Your task to perform on an android device: Go to wifi settings Image 0: 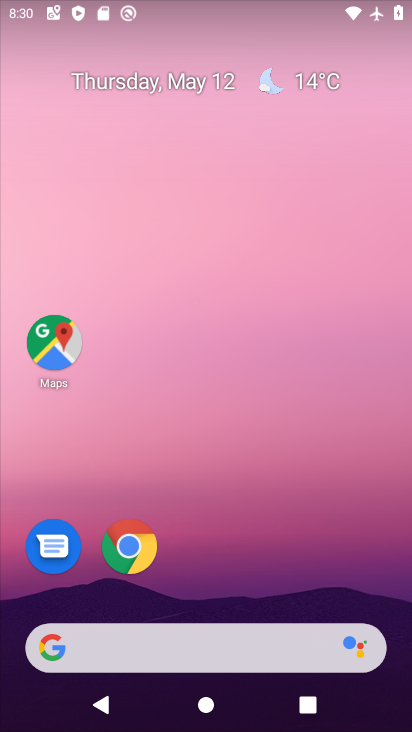
Step 0: drag from (269, 653) to (404, 214)
Your task to perform on an android device: Go to wifi settings Image 1: 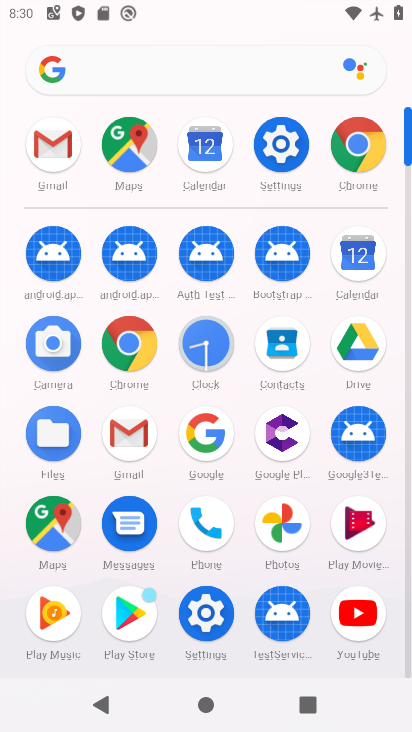
Step 1: drag from (252, 401) to (316, 77)
Your task to perform on an android device: Go to wifi settings Image 2: 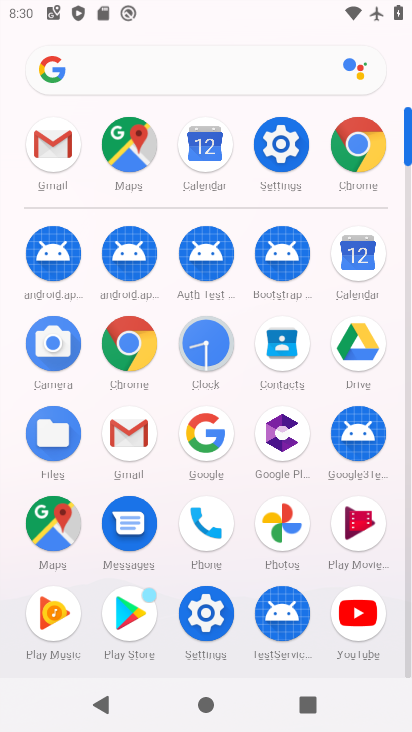
Step 2: click (278, 130)
Your task to perform on an android device: Go to wifi settings Image 3: 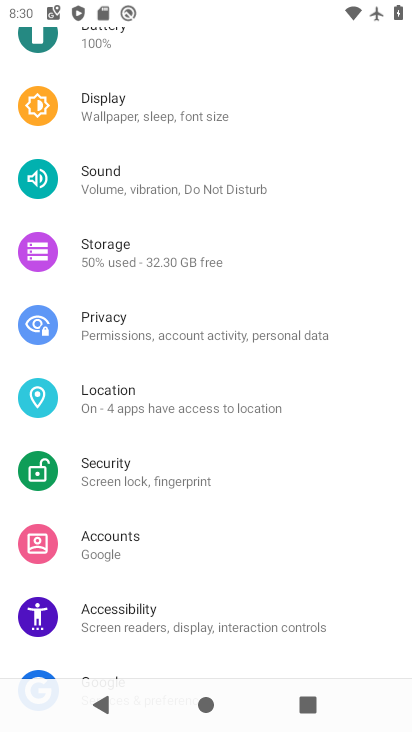
Step 3: drag from (325, 202) to (315, 532)
Your task to perform on an android device: Go to wifi settings Image 4: 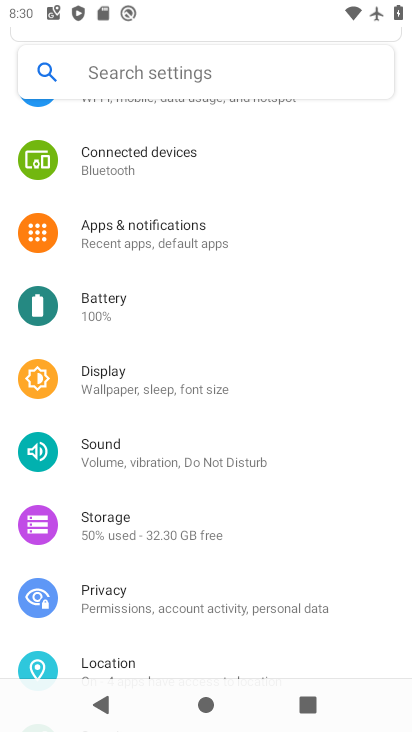
Step 4: drag from (297, 209) to (344, 538)
Your task to perform on an android device: Go to wifi settings Image 5: 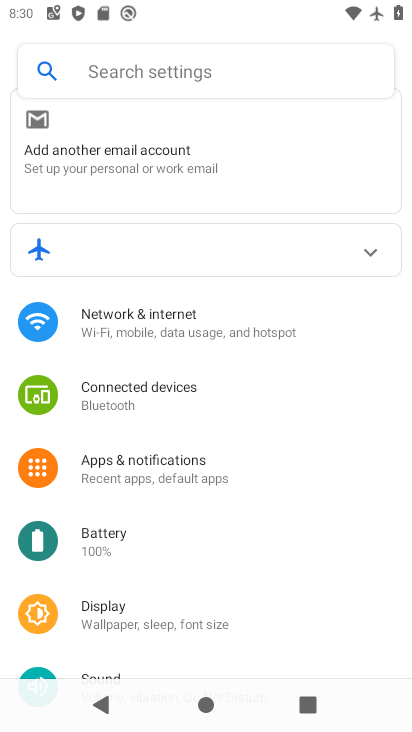
Step 5: click (212, 319)
Your task to perform on an android device: Go to wifi settings Image 6: 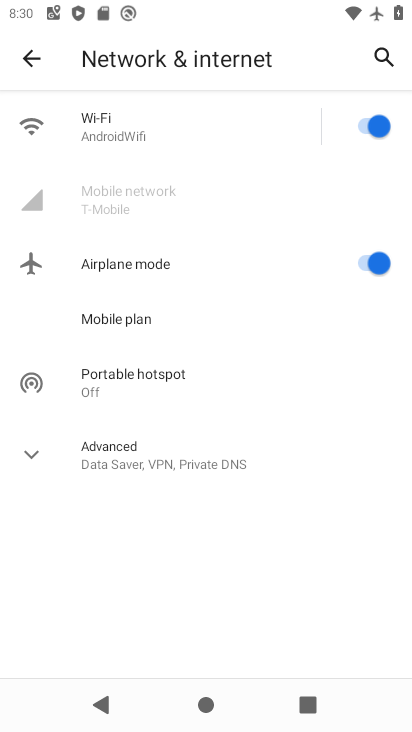
Step 6: click (138, 134)
Your task to perform on an android device: Go to wifi settings Image 7: 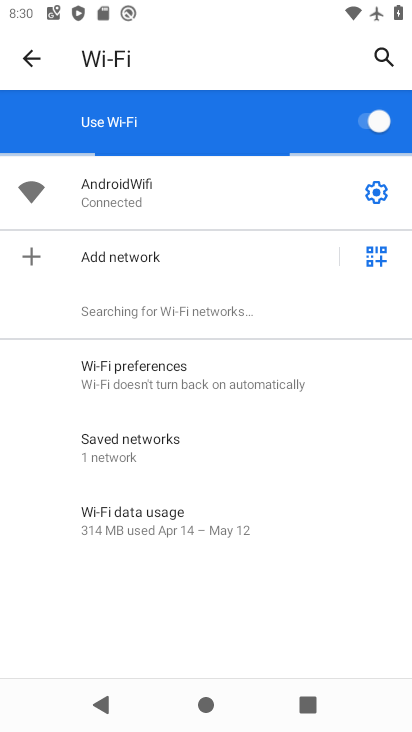
Step 7: task complete